Your task to perform on an android device: turn pop-ups off in chrome Image 0: 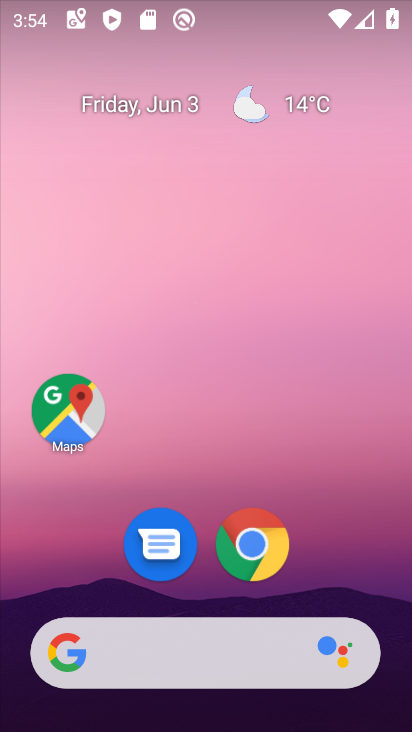
Step 0: click (258, 547)
Your task to perform on an android device: turn pop-ups off in chrome Image 1: 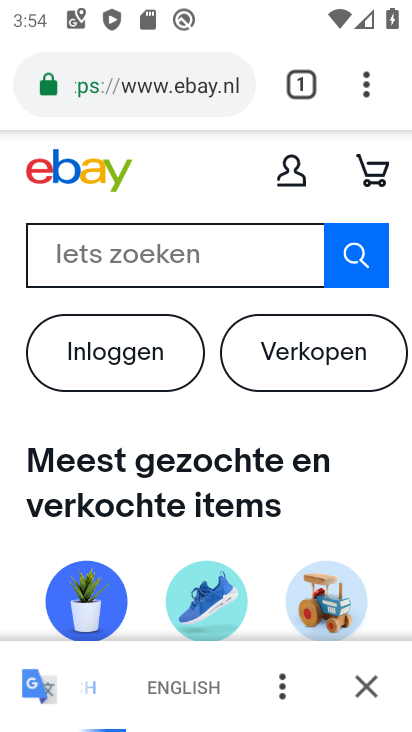
Step 1: click (364, 93)
Your task to perform on an android device: turn pop-ups off in chrome Image 2: 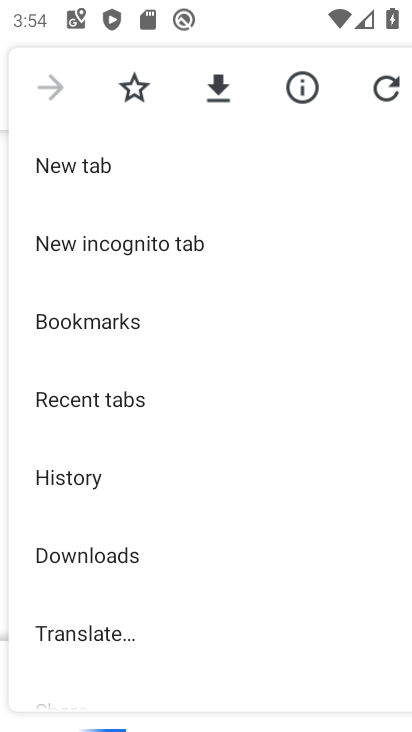
Step 2: drag from (258, 569) to (230, 306)
Your task to perform on an android device: turn pop-ups off in chrome Image 3: 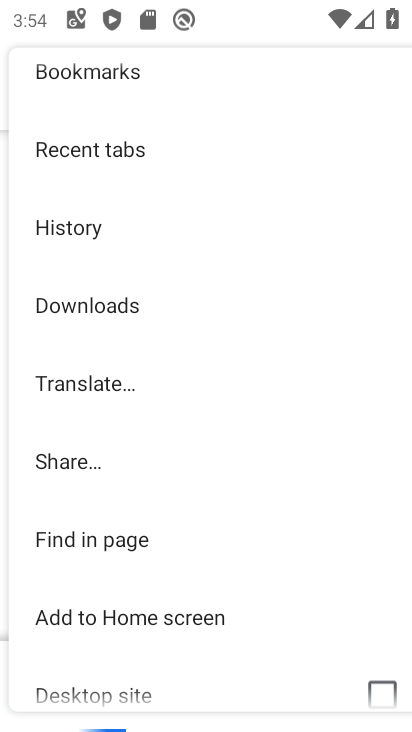
Step 3: drag from (187, 626) to (172, 144)
Your task to perform on an android device: turn pop-ups off in chrome Image 4: 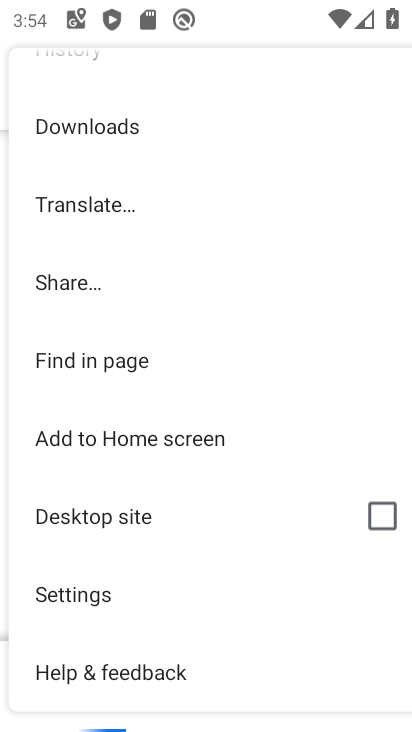
Step 4: click (93, 594)
Your task to perform on an android device: turn pop-ups off in chrome Image 5: 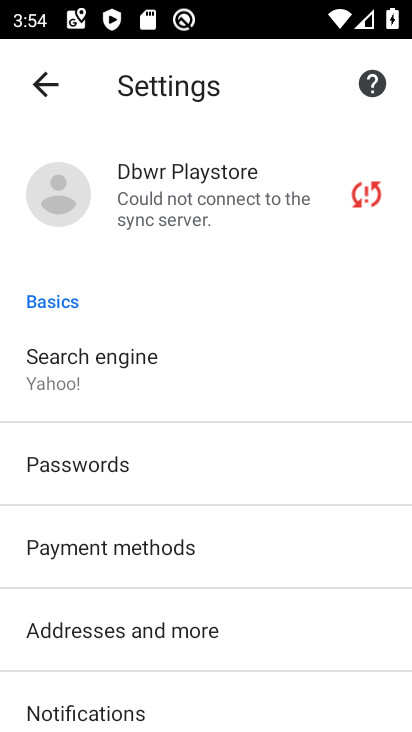
Step 5: drag from (255, 654) to (256, 342)
Your task to perform on an android device: turn pop-ups off in chrome Image 6: 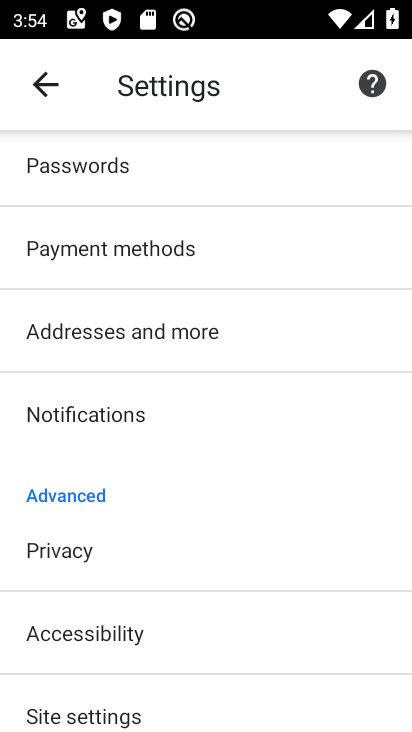
Step 6: drag from (230, 675) to (232, 276)
Your task to perform on an android device: turn pop-ups off in chrome Image 7: 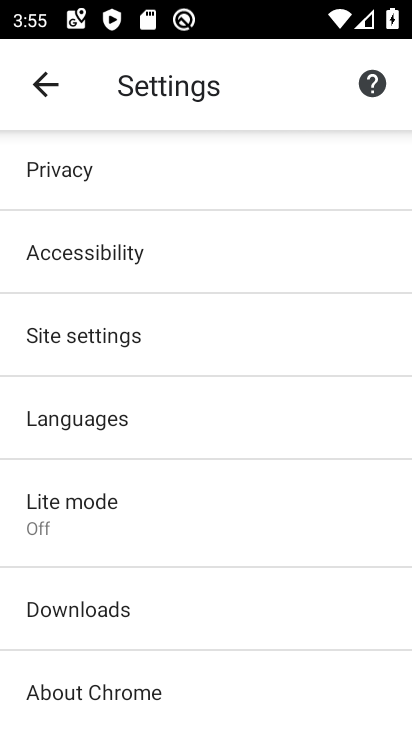
Step 7: click (78, 347)
Your task to perform on an android device: turn pop-ups off in chrome Image 8: 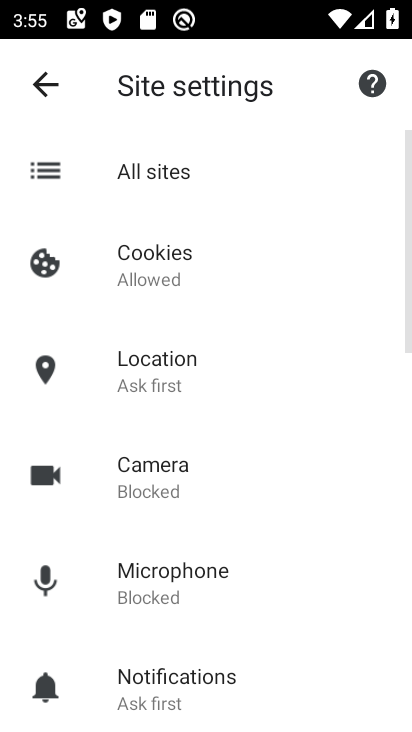
Step 8: drag from (260, 636) to (251, 151)
Your task to perform on an android device: turn pop-ups off in chrome Image 9: 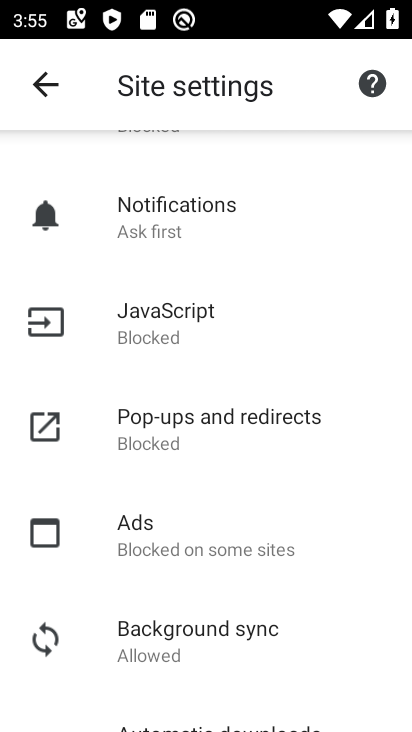
Step 9: click (162, 419)
Your task to perform on an android device: turn pop-ups off in chrome Image 10: 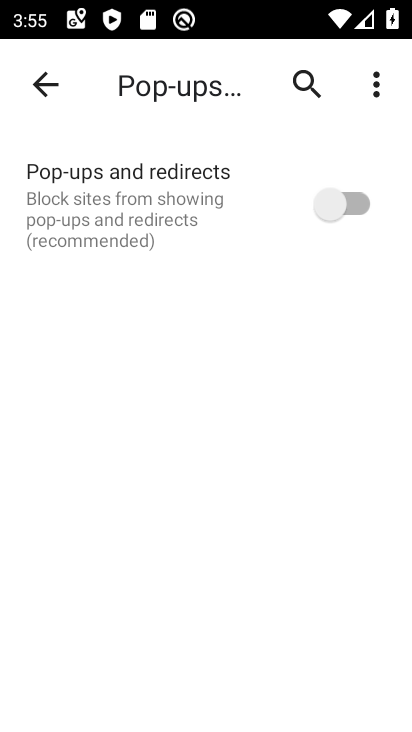
Step 10: task complete